Your task to perform on an android device: change the clock display to digital Image 0: 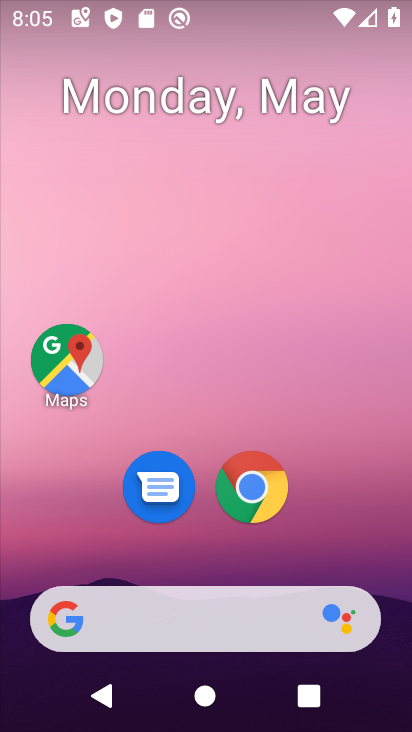
Step 0: drag from (363, 544) to (365, 129)
Your task to perform on an android device: change the clock display to digital Image 1: 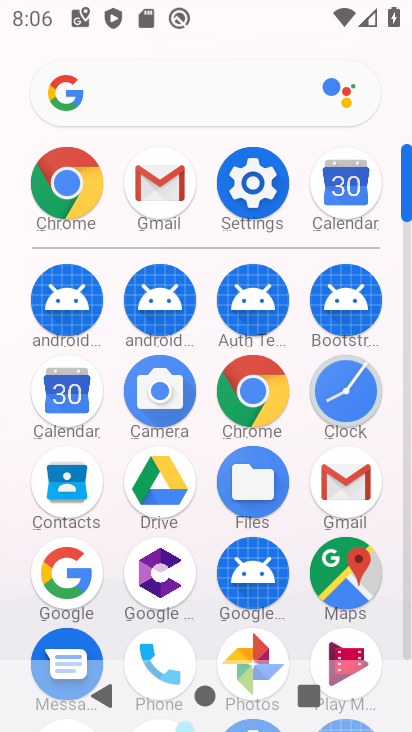
Step 1: click (355, 396)
Your task to perform on an android device: change the clock display to digital Image 2: 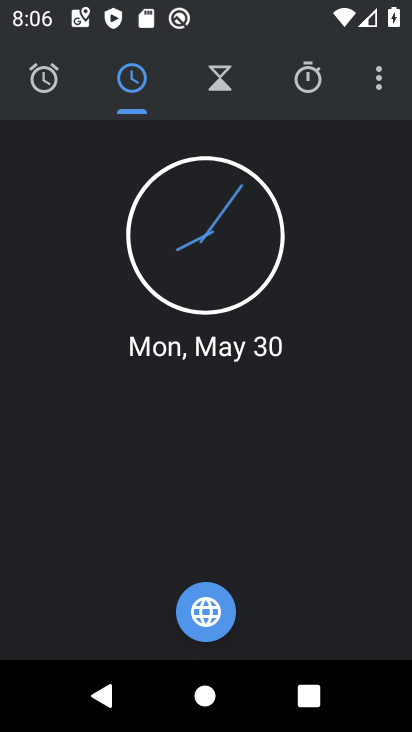
Step 2: click (380, 95)
Your task to perform on an android device: change the clock display to digital Image 3: 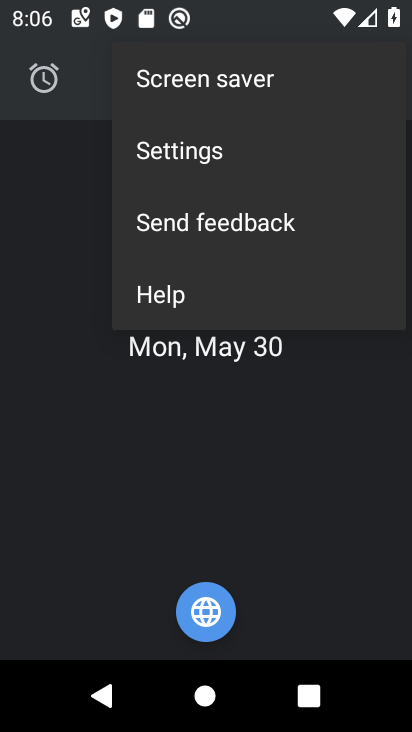
Step 3: click (210, 164)
Your task to perform on an android device: change the clock display to digital Image 4: 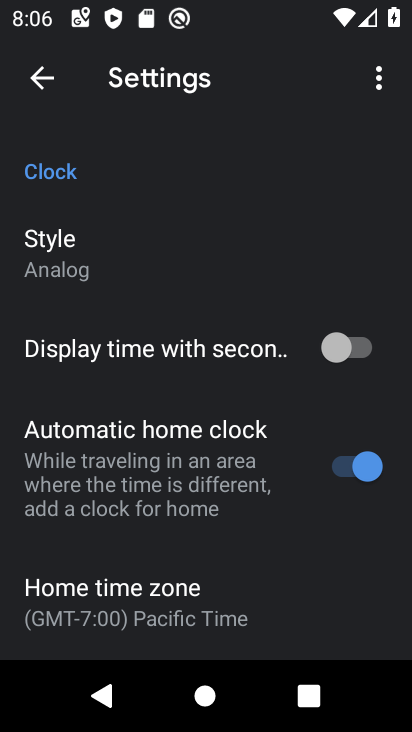
Step 4: drag from (270, 506) to (313, 348)
Your task to perform on an android device: change the clock display to digital Image 5: 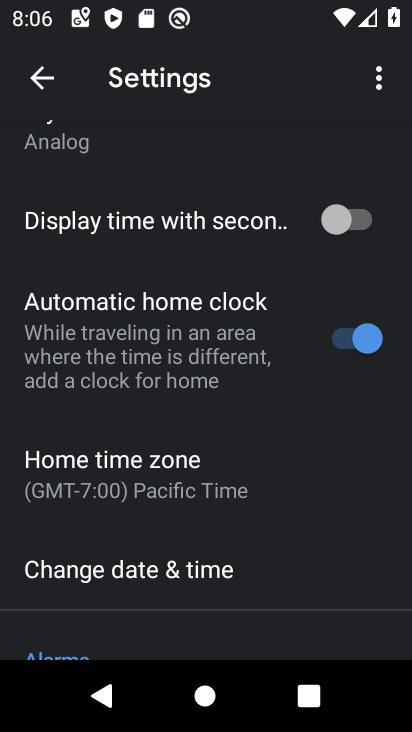
Step 5: drag from (292, 508) to (297, 358)
Your task to perform on an android device: change the clock display to digital Image 6: 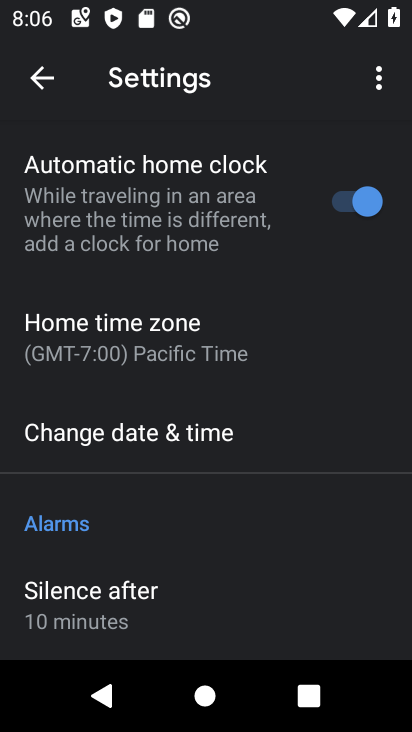
Step 6: drag from (286, 520) to (311, 394)
Your task to perform on an android device: change the clock display to digital Image 7: 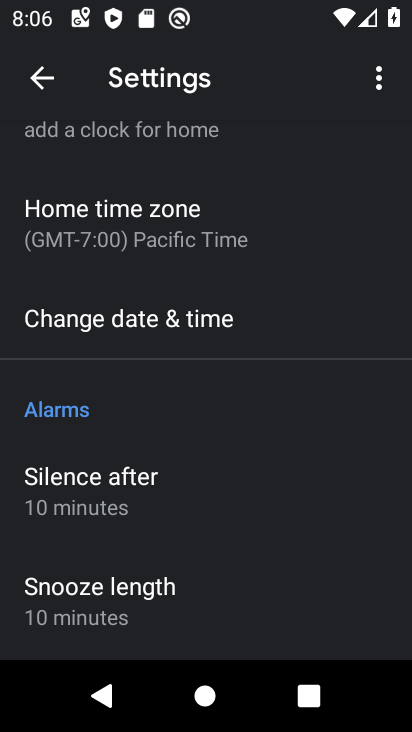
Step 7: drag from (304, 516) to (307, 412)
Your task to perform on an android device: change the clock display to digital Image 8: 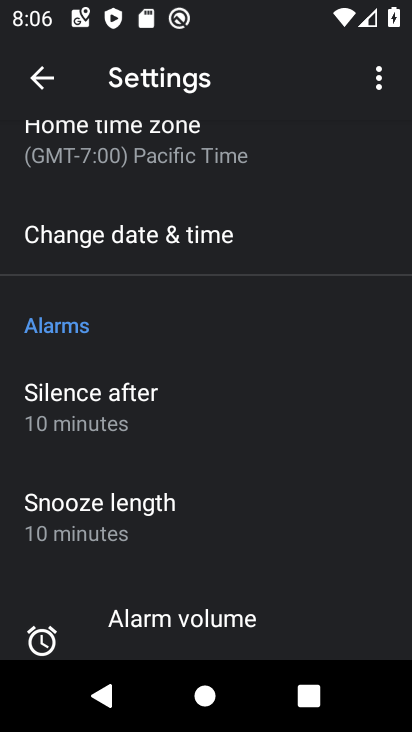
Step 8: drag from (308, 524) to (304, 356)
Your task to perform on an android device: change the clock display to digital Image 9: 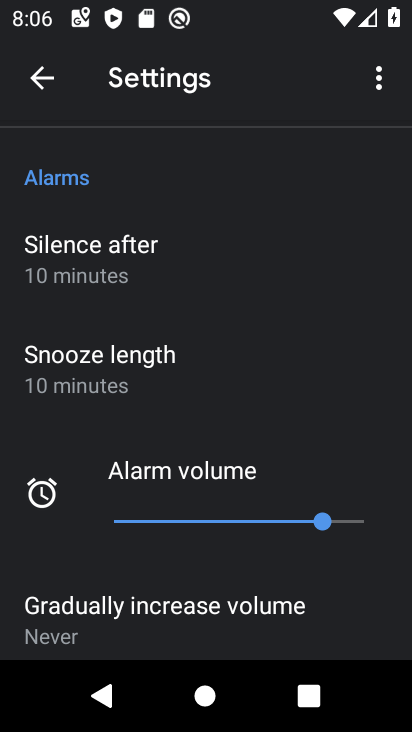
Step 9: drag from (345, 586) to (344, 460)
Your task to perform on an android device: change the clock display to digital Image 10: 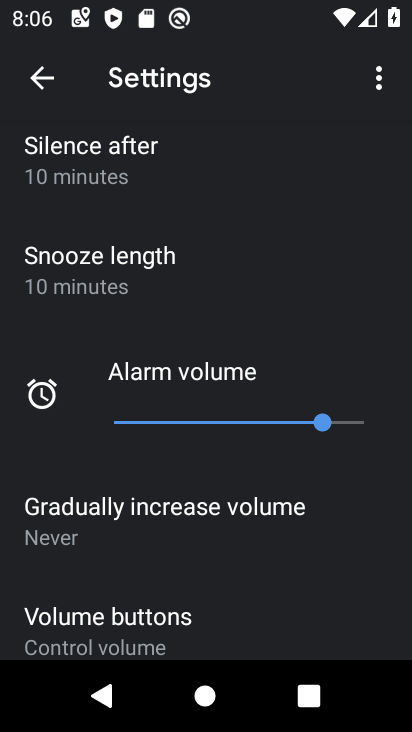
Step 10: drag from (348, 587) to (356, 477)
Your task to perform on an android device: change the clock display to digital Image 11: 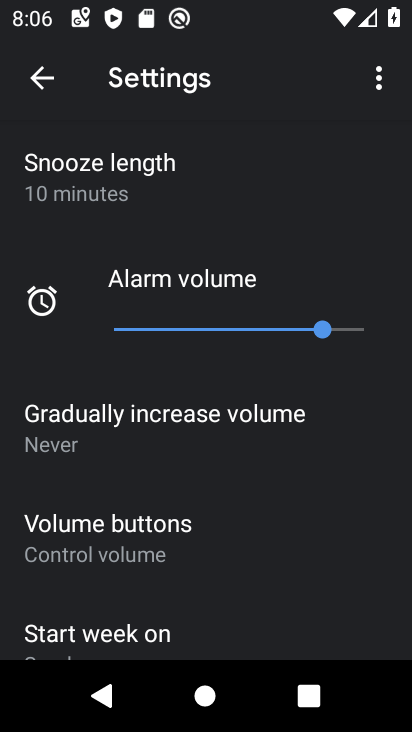
Step 11: drag from (326, 600) to (336, 450)
Your task to perform on an android device: change the clock display to digital Image 12: 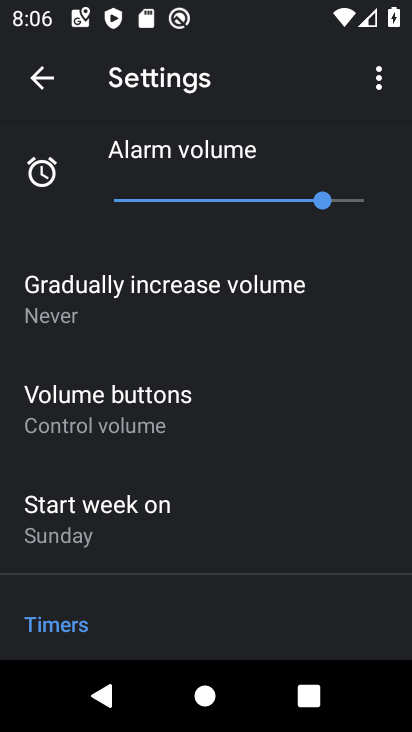
Step 12: drag from (341, 561) to (352, 317)
Your task to perform on an android device: change the clock display to digital Image 13: 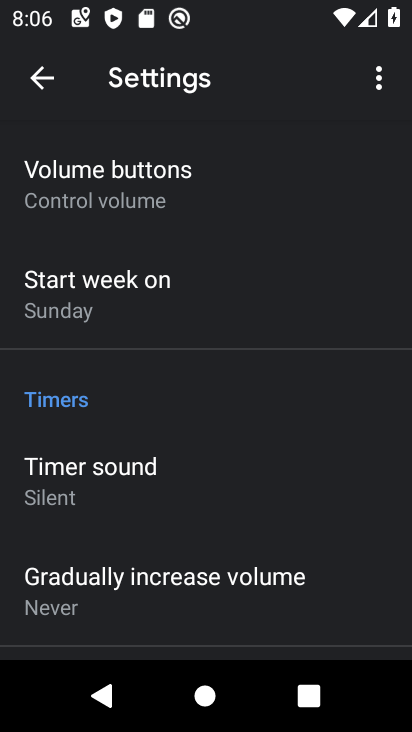
Step 13: drag from (350, 283) to (341, 445)
Your task to perform on an android device: change the clock display to digital Image 14: 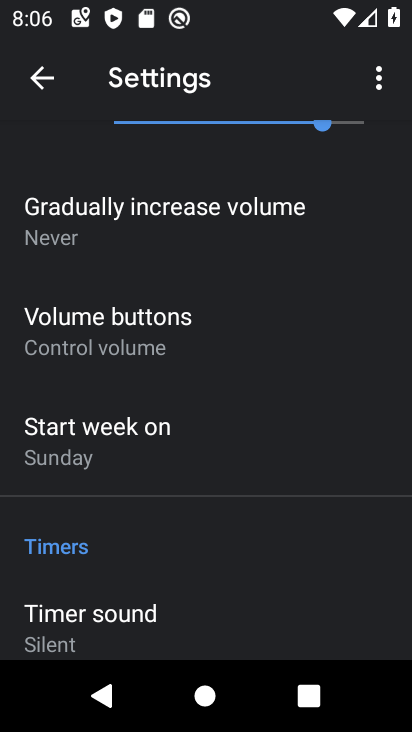
Step 14: drag from (348, 250) to (355, 379)
Your task to perform on an android device: change the clock display to digital Image 15: 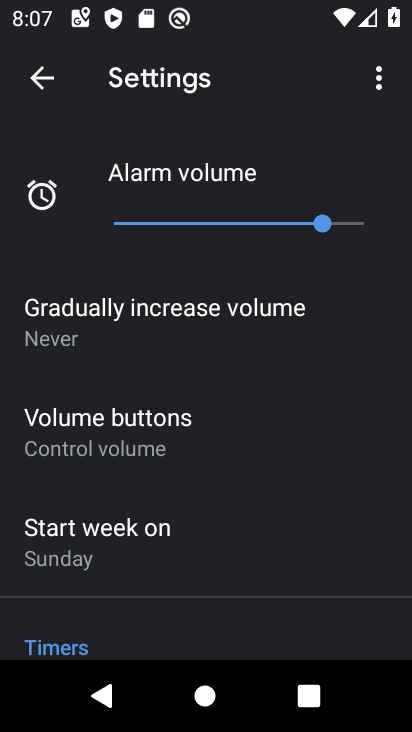
Step 15: drag from (375, 198) to (374, 343)
Your task to perform on an android device: change the clock display to digital Image 16: 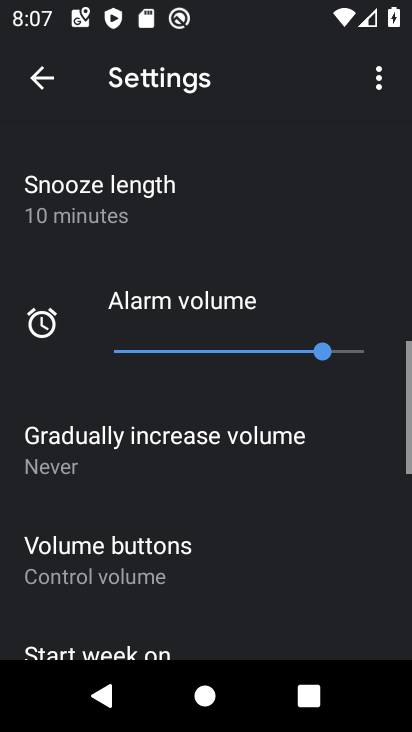
Step 16: drag from (354, 191) to (364, 366)
Your task to perform on an android device: change the clock display to digital Image 17: 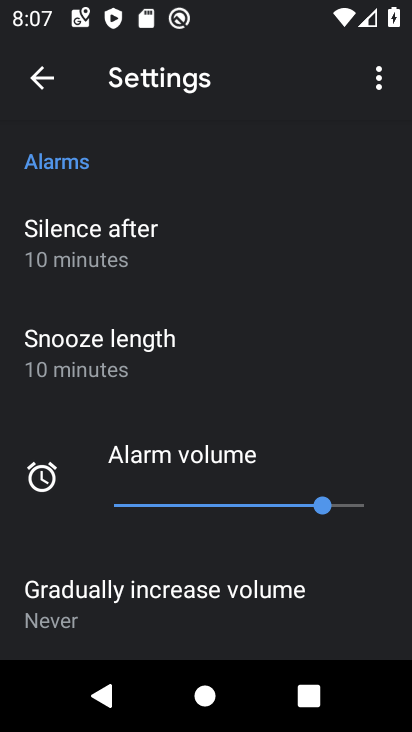
Step 17: drag from (354, 192) to (363, 353)
Your task to perform on an android device: change the clock display to digital Image 18: 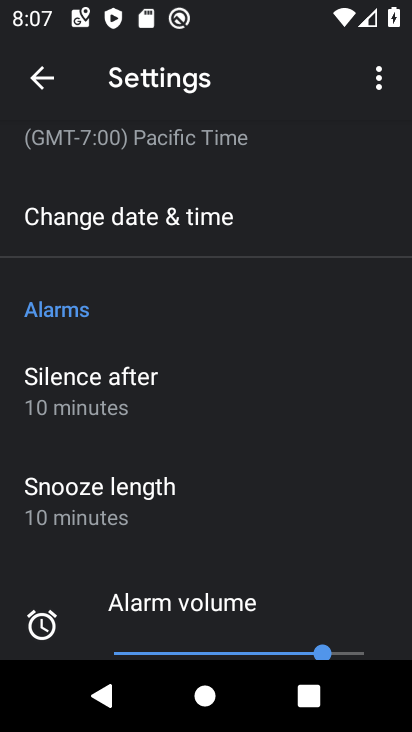
Step 18: drag from (348, 186) to (358, 332)
Your task to perform on an android device: change the clock display to digital Image 19: 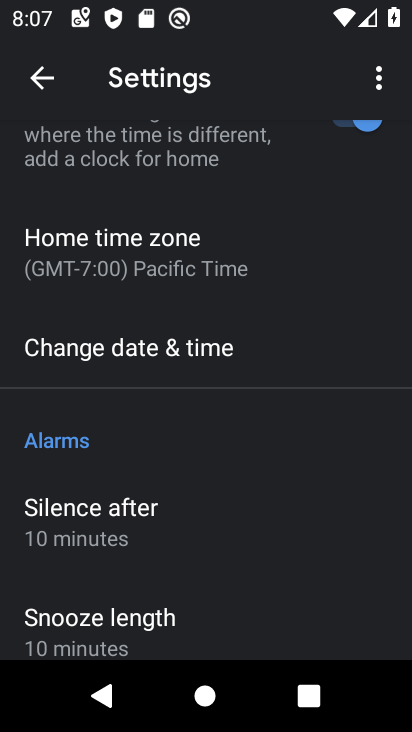
Step 19: drag from (305, 152) to (317, 322)
Your task to perform on an android device: change the clock display to digital Image 20: 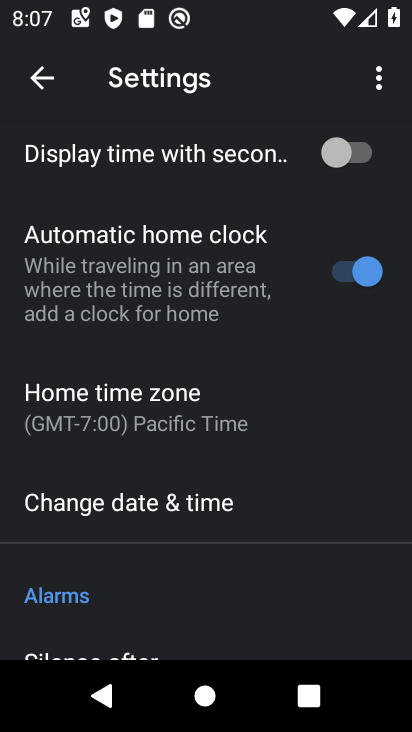
Step 20: drag from (289, 148) to (274, 316)
Your task to perform on an android device: change the clock display to digital Image 21: 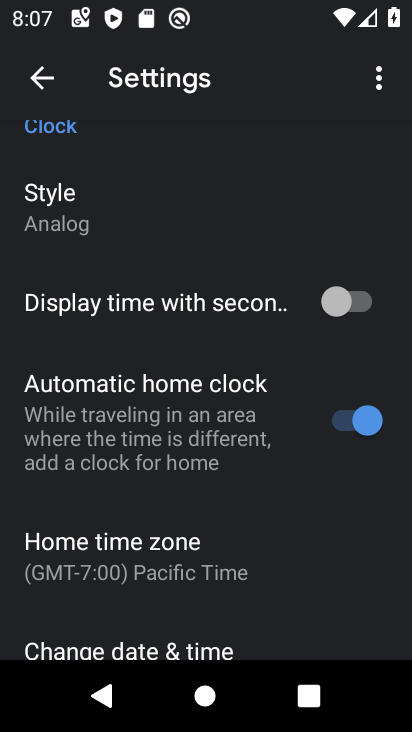
Step 21: drag from (273, 173) to (270, 282)
Your task to perform on an android device: change the clock display to digital Image 22: 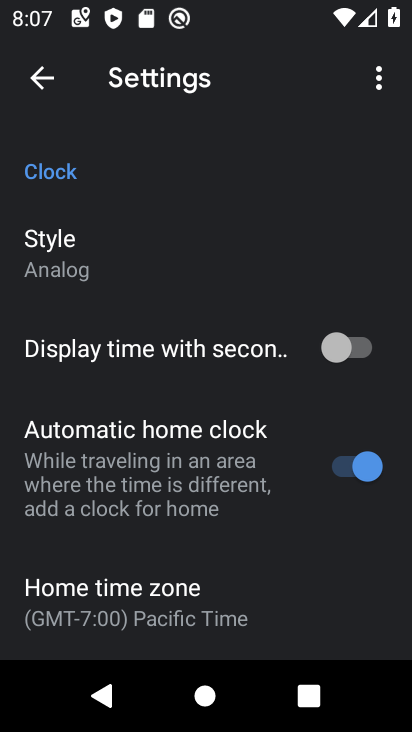
Step 22: click (52, 261)
Your task to perform on an android device: change the clock display to digital Image 23: 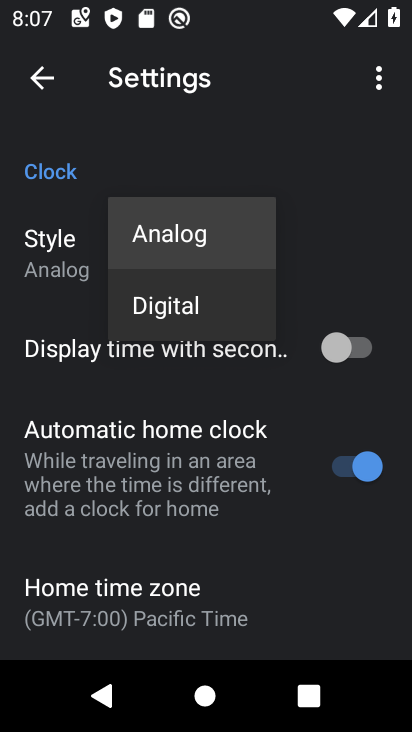
Step 23: click (227, 319)
Your task to perform on an android device: change the clock display to digital Image 24: 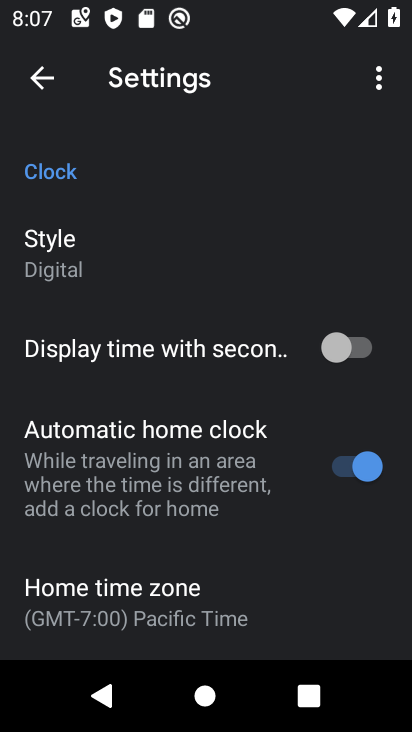
Step 24: task complete